Your task to perform on an android device: Open Google Chrome Image 0: 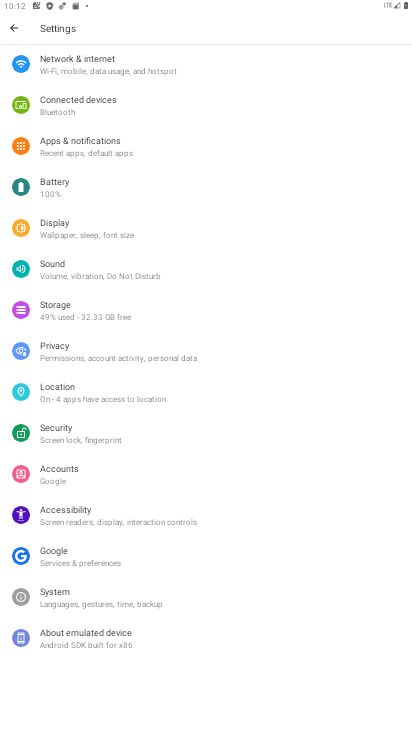
Step 0: press home button
Your task to perform on an android device: Open Google Chrome Image 1: 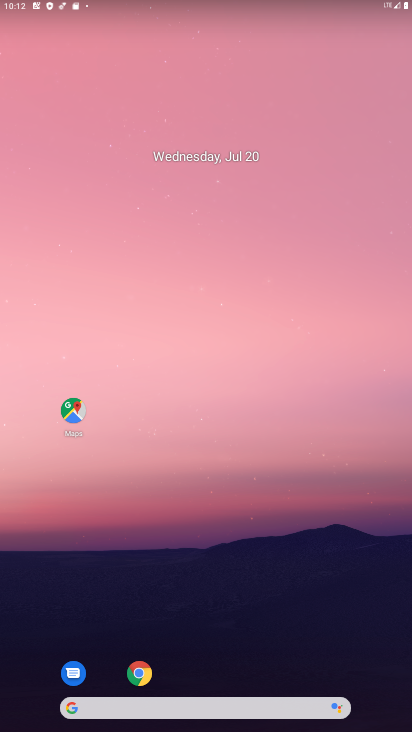
Step 1: click (140, 675)
Your task to perform on an android device: Open Google Chrome Image 2: 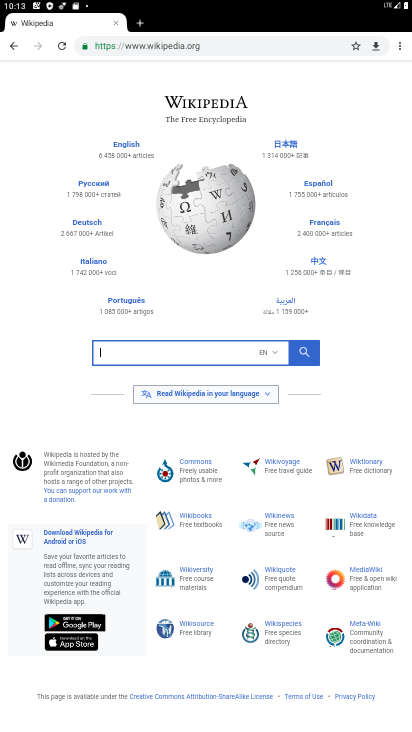
Step 2: task complete